Your task to perform on an android device: Open the calendar and show me this week's events? Image 0: 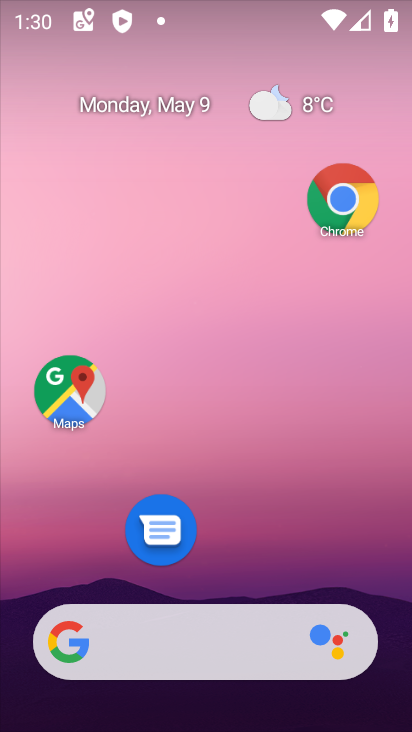
Step 0: drag from (263, 557) to (267, 152)
Your task to perform on an android device: Open the calendar and show me this week's events? Image 1: 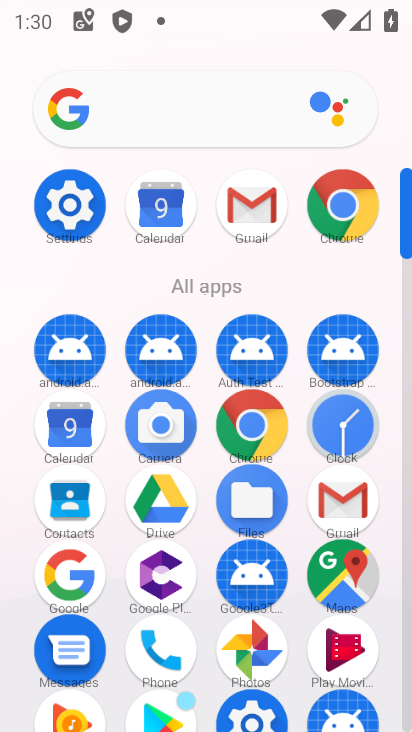
Step 1: click (68, 428)
Your task to perform on an android device: Open the calendar and show me this week's events? Image 2: 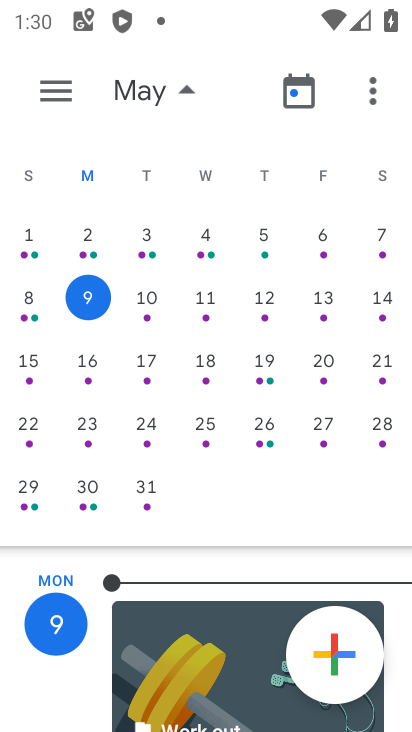
Step 2: click (267, 303)
Your task to perform on an android device: Open the calendar and show me this week's events? Image 3: 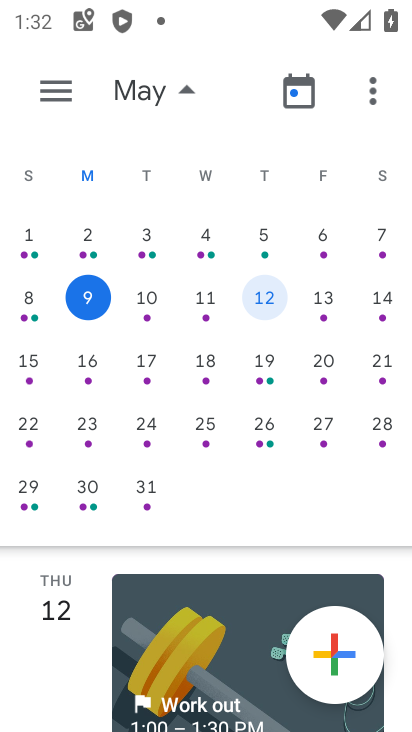
Step 3: task complete